Your task to perform on an android device: toggle notifications settings in the gmail app Image 0: 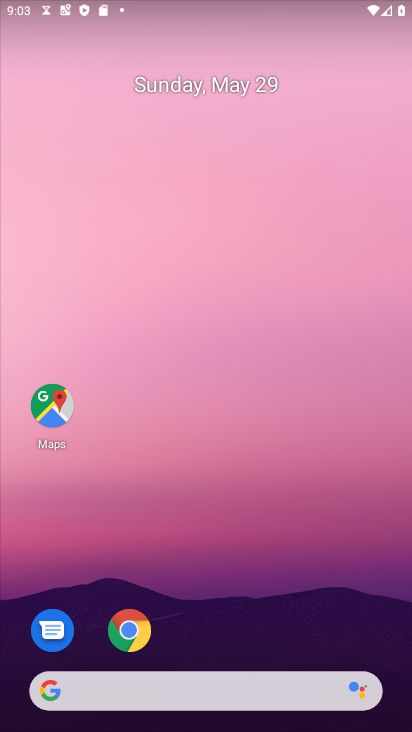
Step 0: drag from (223, 631) to (153, 125)
Your task to perform on an android device: toggle notifications settings in the gmail app Image 1: 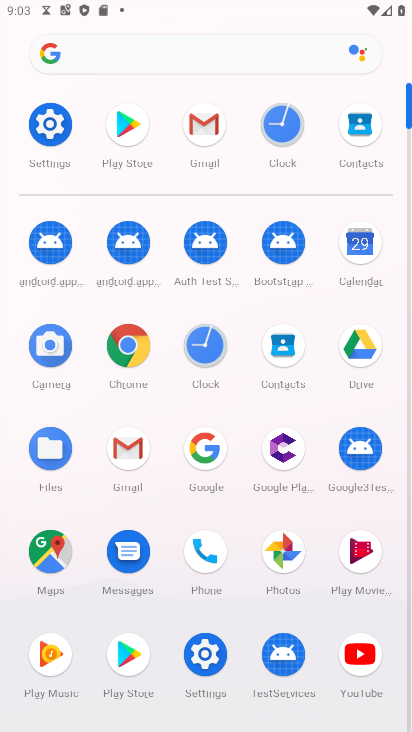
Step 1: click (209, 127)
Your task to perform on an android device: toggle notifications settings in the gmail app Image 2: 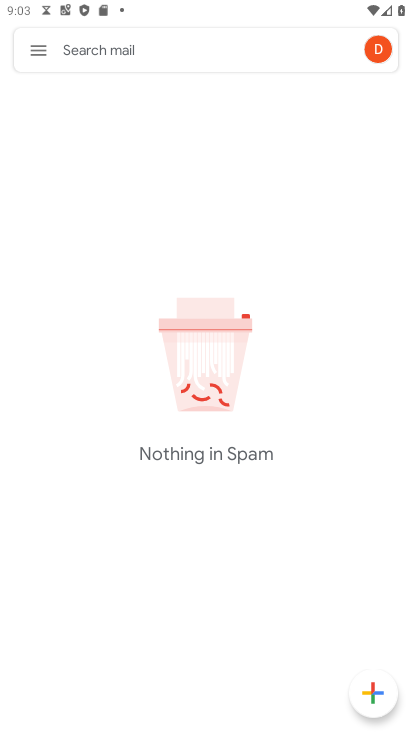
Step 2: click (35, 50)
Your task to perform on an android device: toggle notifications settings in the gmail app Image 3: 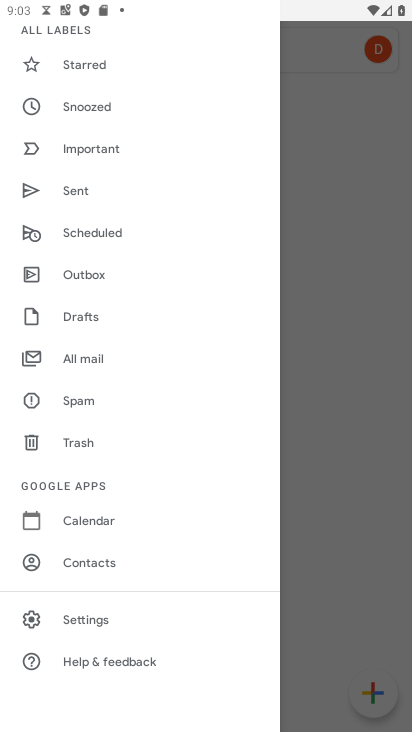
Step 3: click (92, 610)
Your task to perform on an android device: toggle notifications settings in the gmail app Image 4: 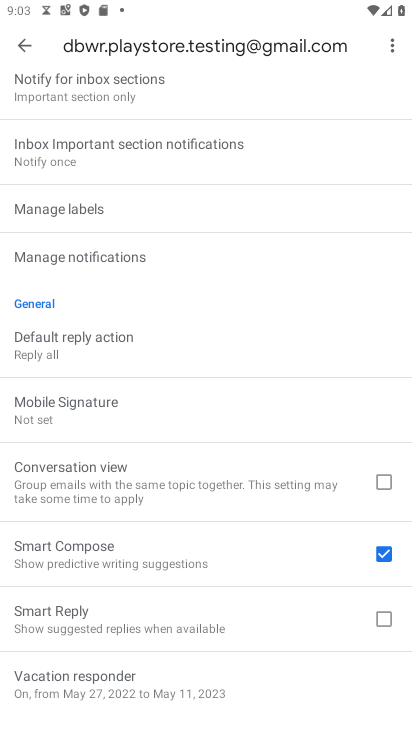
Step 4: click (99, 254)
Your task to perform on an android device: toggle notifications settings in the gmail app Image 5: 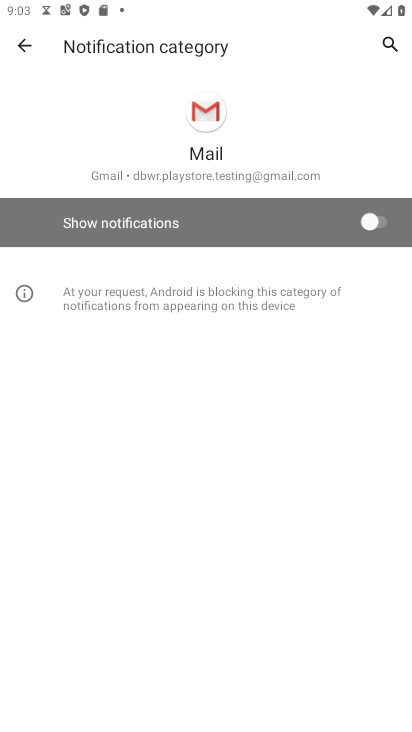
Step 5: click (379, 219)
Your task to perform on an android device: toggle notifications settings in the gmail app Image 6: 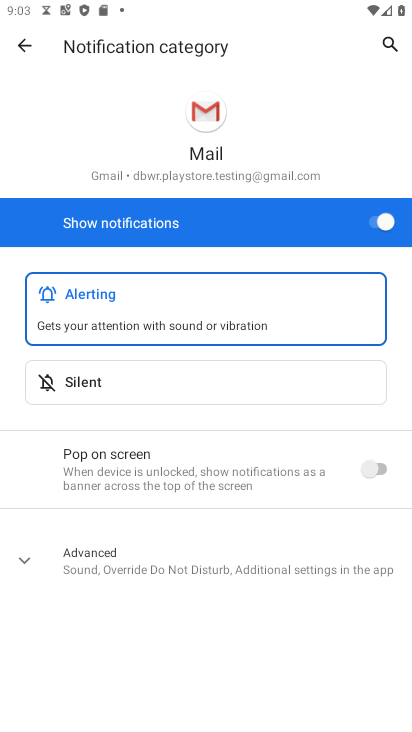
Step 6: task complete